Your task to perform on an android device: delete location history Image 0: 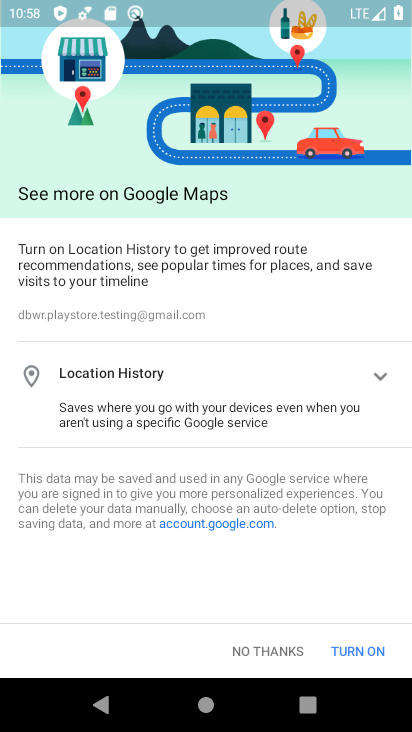
Step 0: click (274, 654)
Your task to perform on an android device: delete location history Image 1: 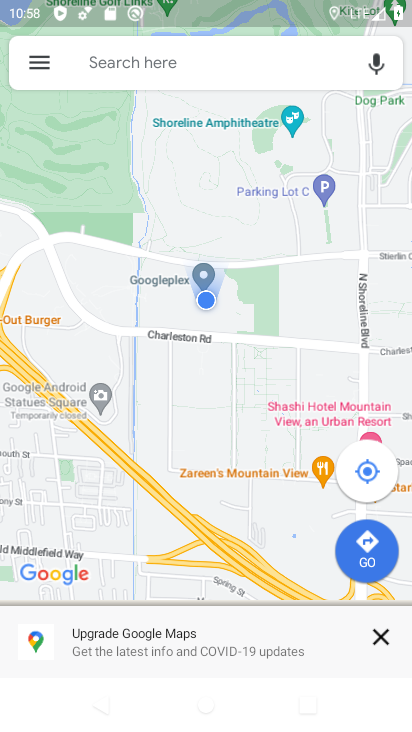
Step 1: click (31, 71)
Your task to perform on an android device: delete location history Image 2: 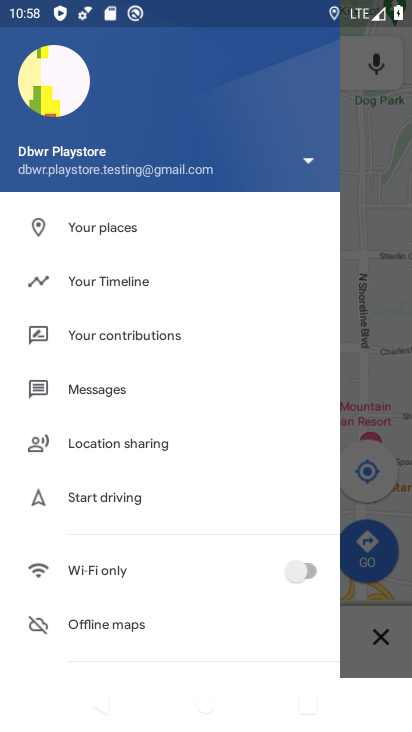
Step 2: click (90, 278)
Your task to perform on an android device: delete location history Image 3: 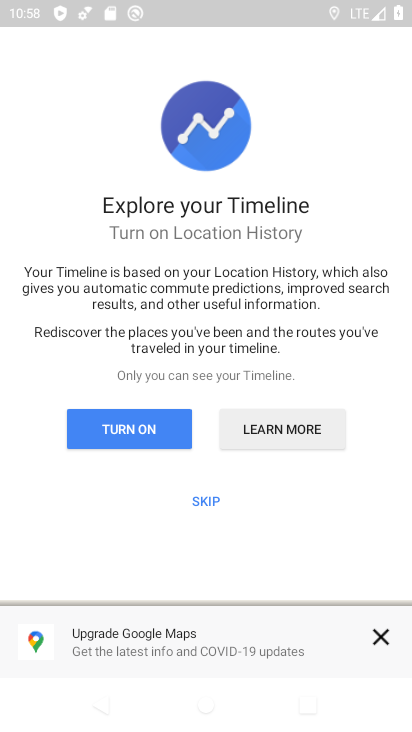
Step 3: click (206, 499)
Your task to perform on an android device: delete location history Image 4: 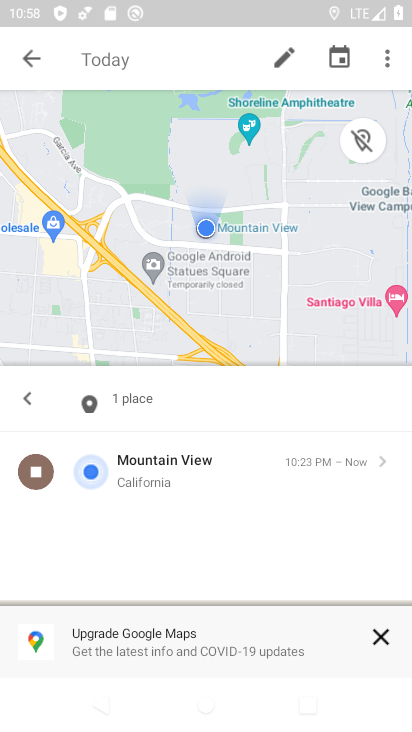
Step 4: click (386, 64)
Your task to perform on an android device: delete location history Image 5: 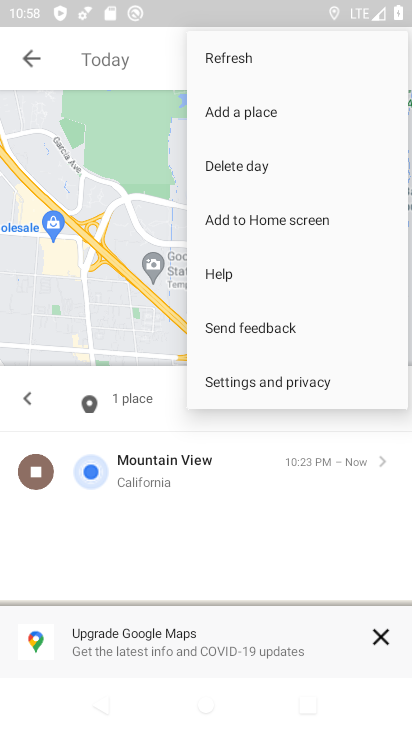
Step 5: click (262, 382)
Your task to perform on an android device: delete location history Image 6: 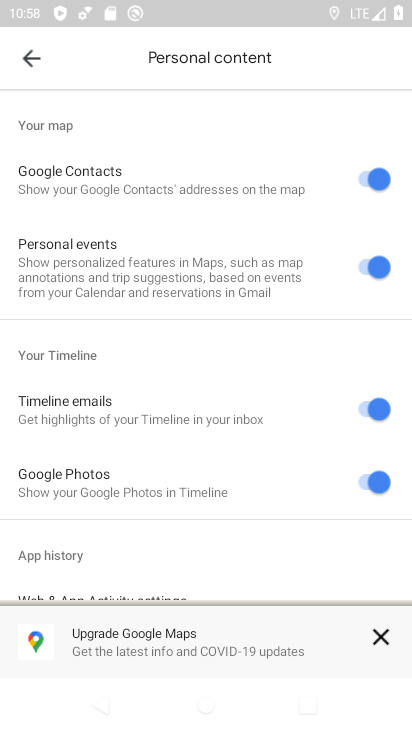
Step 6: drag from (215, 577) to (215, 207)
Your task to perform on an android device: delete location history Image 7: 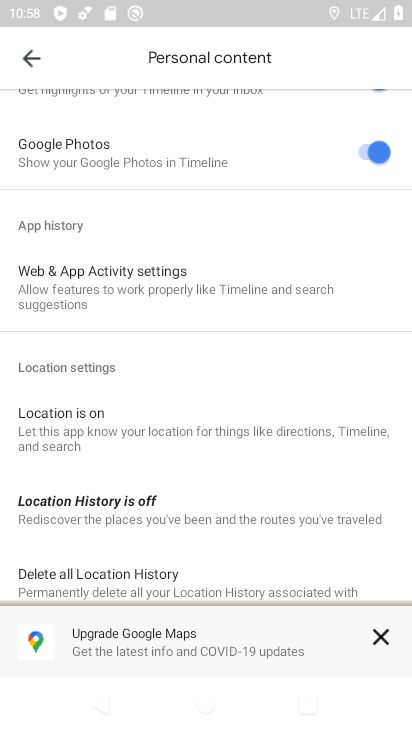
Step 7: drag from (194, 545) to (229, 161)
Your task to perform on an android device: delete location history Image 8: 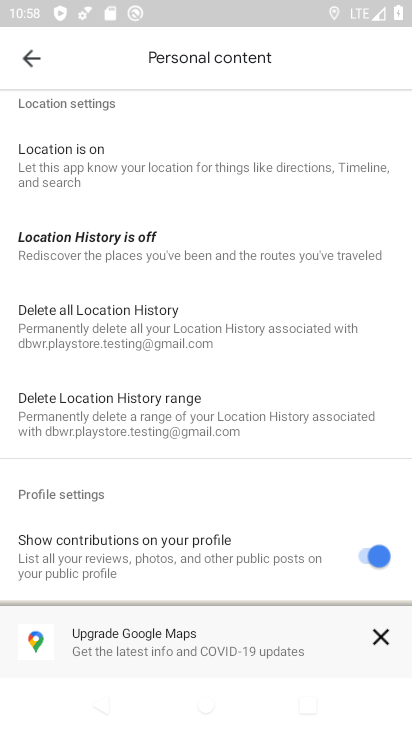
Step 8: click (149, 340)
Your task to perform on an android device: delete location history Image 9: 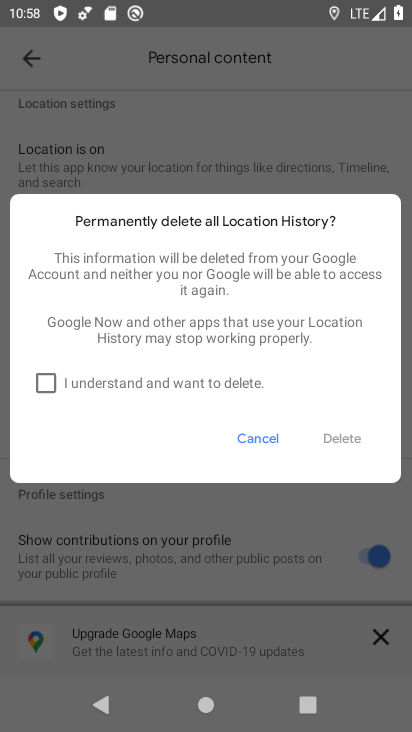
Step 9: click (42, 383)
Your task to perform on an android device: delete location history Image 10: 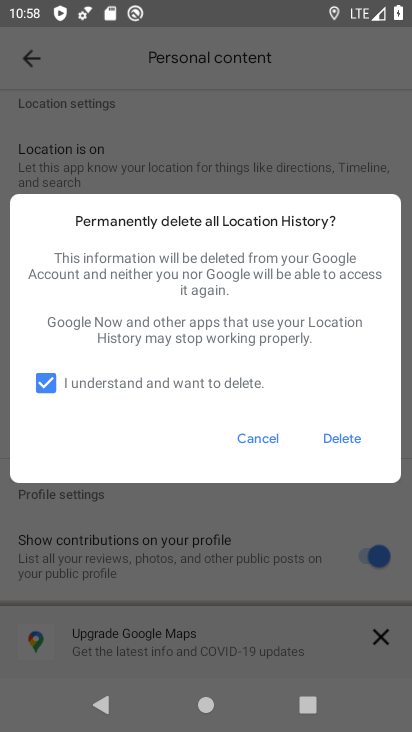
Step 10: click (331, 439)
Your task to perform on an android device: delete location history Image 11: 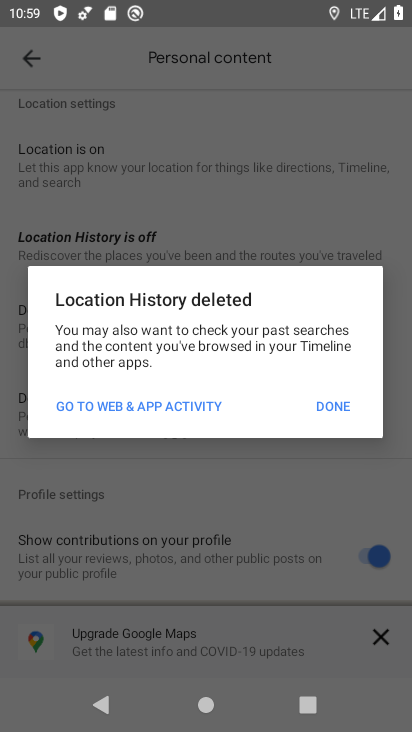
Step 11: click (330, 403)
Your task to perform on an android device: delete location history Image 12: 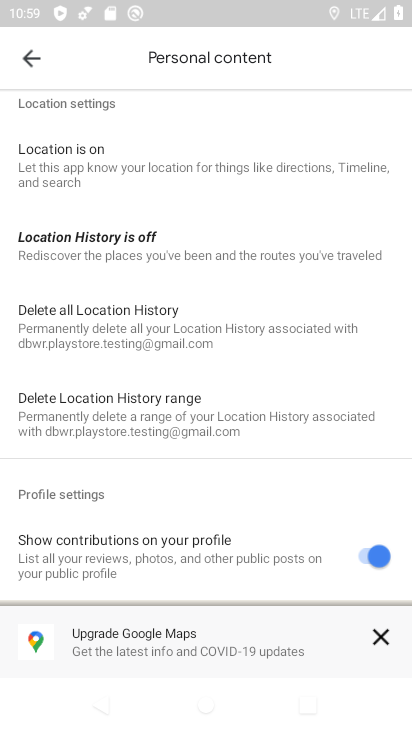
Step 12: task complete